Your task to perform on an android device: search for starred emails in the gmail app Image 0: 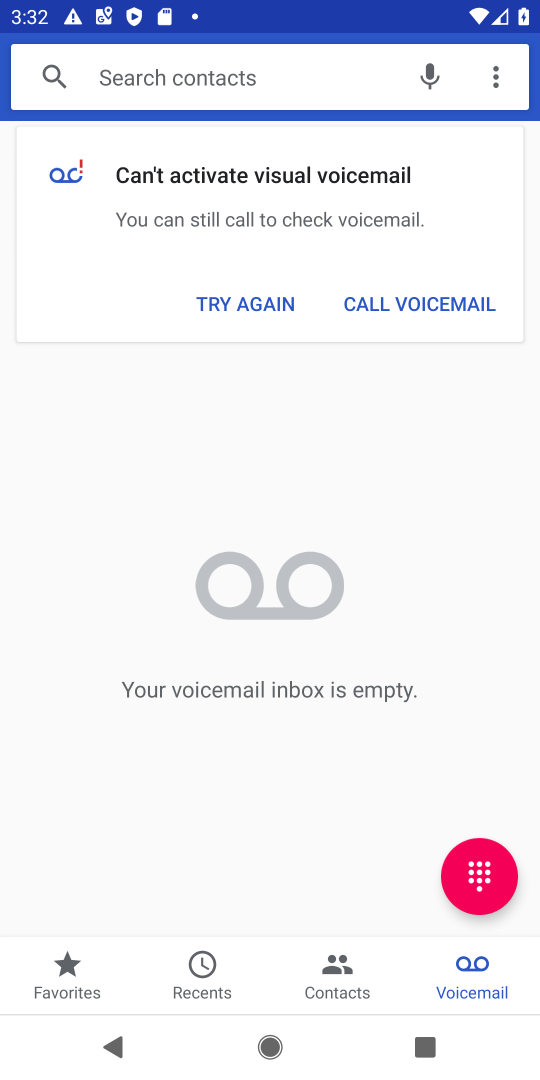
Step 0: press back button
Your task to perform on an android device: search for starred emails in the gmail app Image 1: 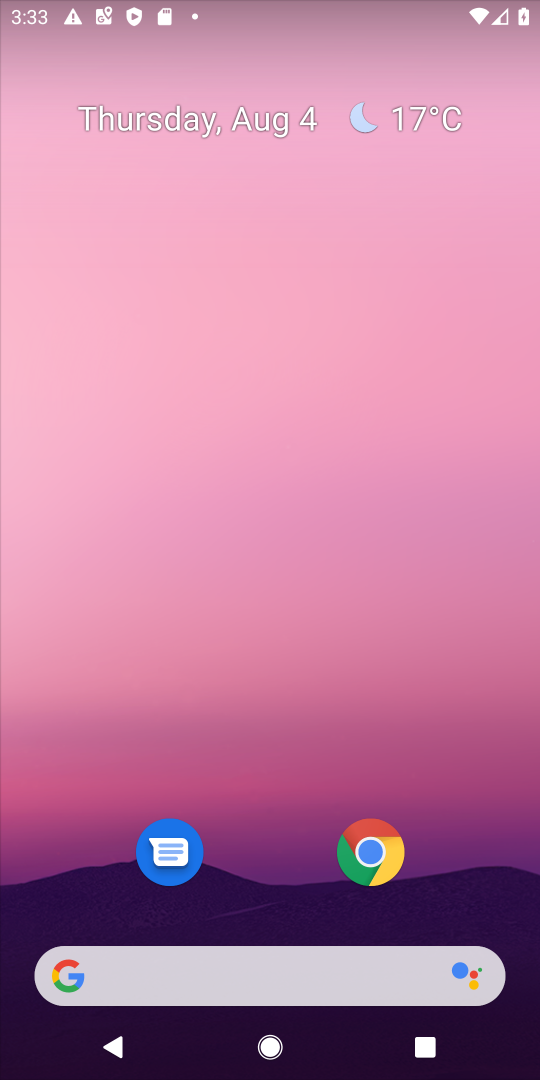
Step 1: drag from (241, 850) to (314, 34)
Your task to perform on an android device: search for starred emails in the gmail app Image 2: 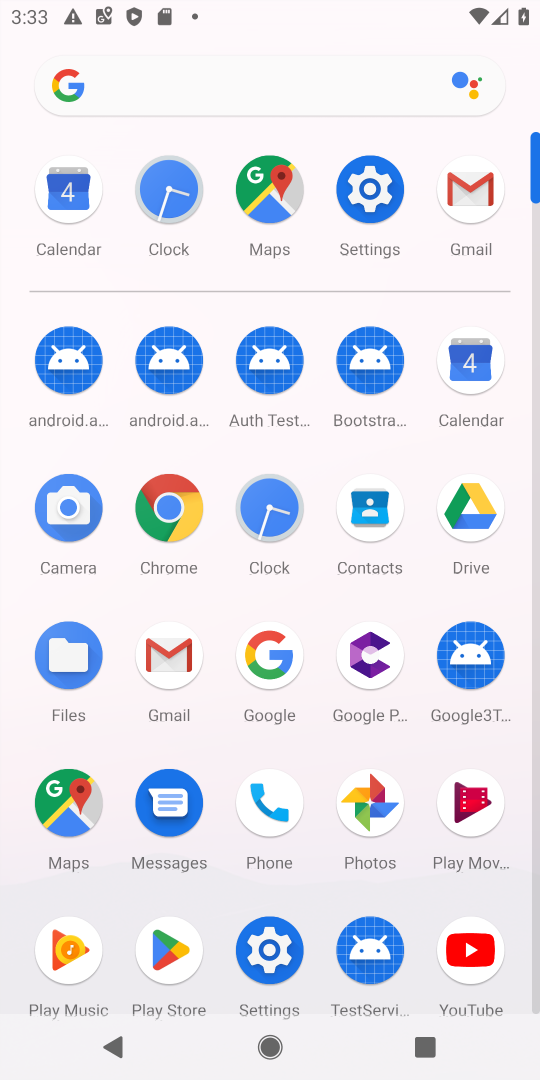
Step 2: click (474, 194)
Your task to perform on an android device: search for starred emails in the gmail app Image 3: 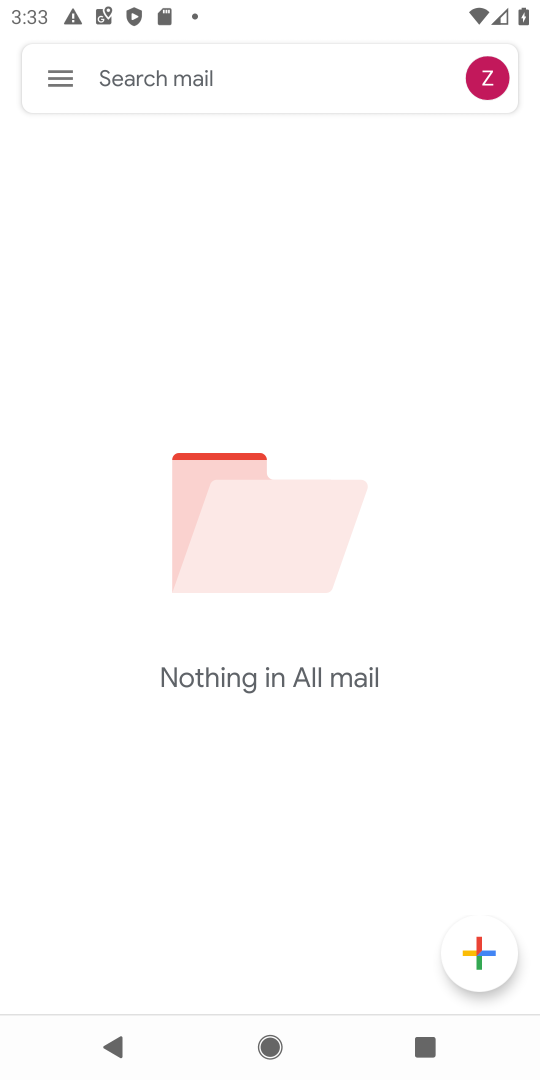
Step 3: click (40, 73)
Your task to perform on an android device: search for starred emails in the gmail app Image 4: 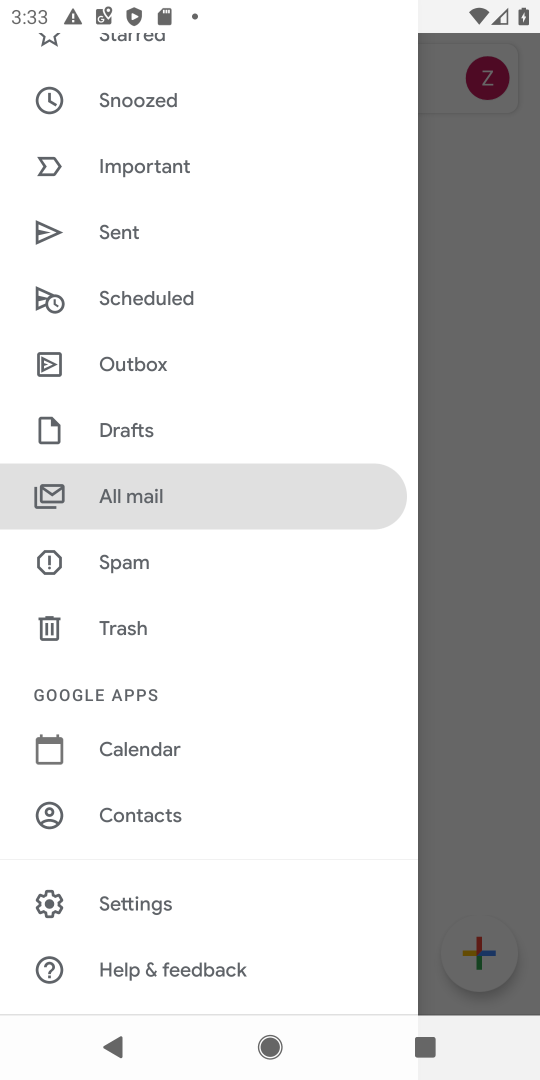
Step 4: click (149, 37)
Your task to perform on an android device: search for starred emails in the gmail app Image 5: 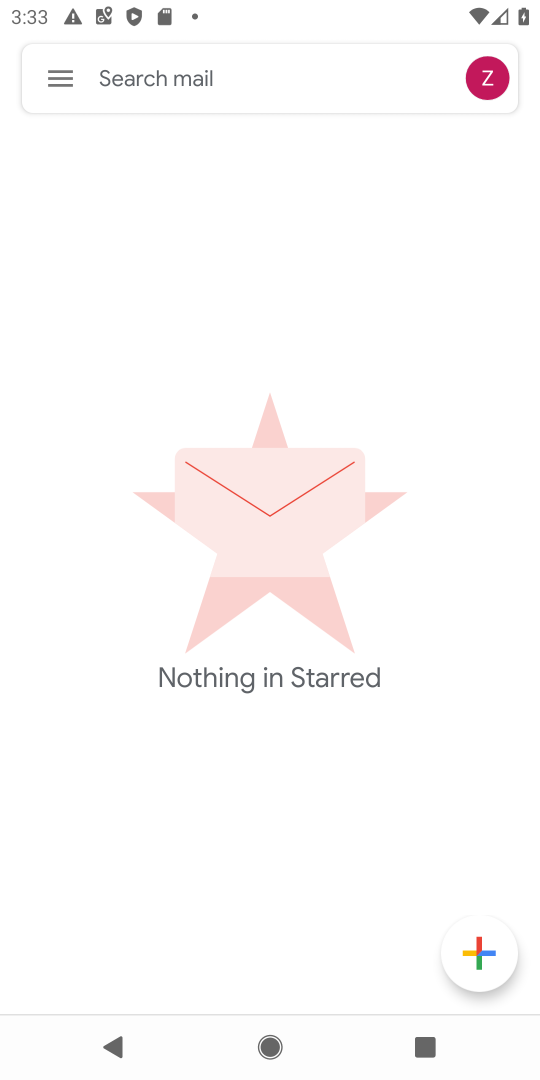
Step 5: task complete